Your task to perform on an android device: Open eBay Image 0: 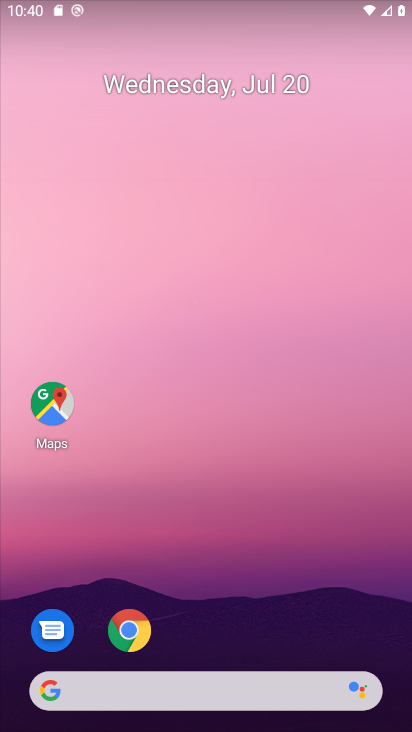
Step 0: click (151, 99)
Your task to perform on an android device: Open eBay Image 1: 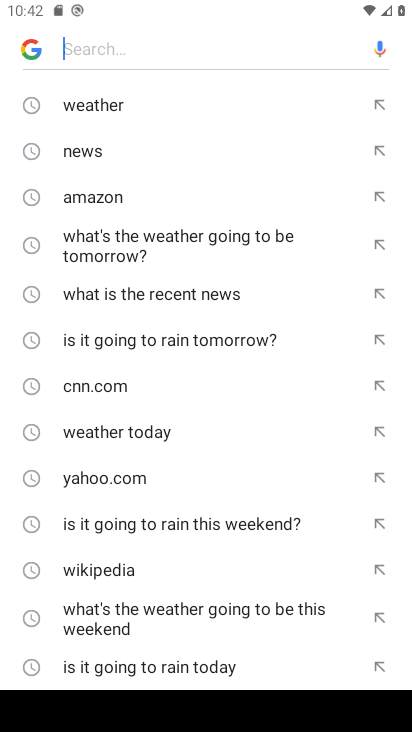
Step 1: press back button
Your task to perform on an android device: Open eBay Image 2: 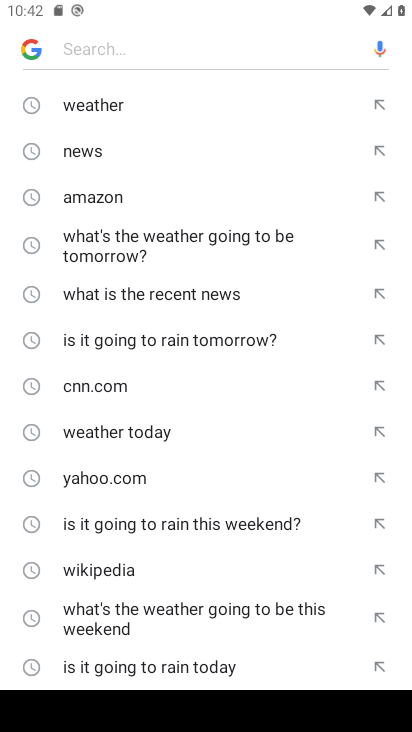
Step 2: press back button
Your task to perform on an android device: Open eBay Image 3: 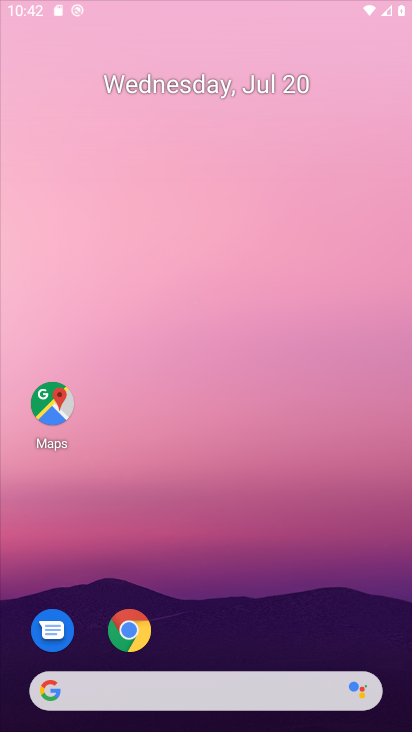
Step 3: press back button
Your task to perform on an android device: Open eBay Image 4: 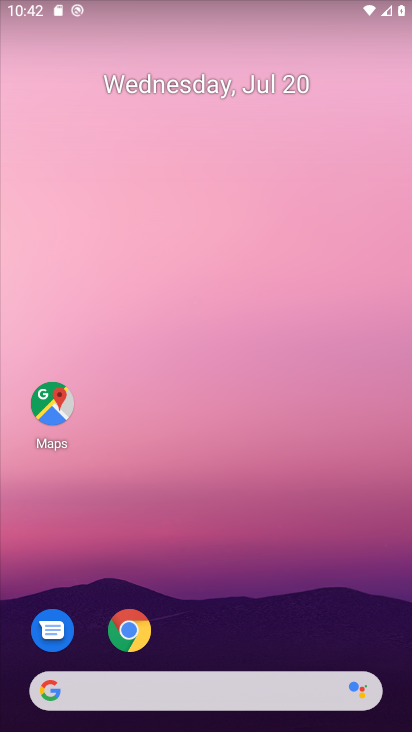
Step 4: drag from (206, 572) to (144, 52)
Your task to perform on an android device: Open eBay Image 5: 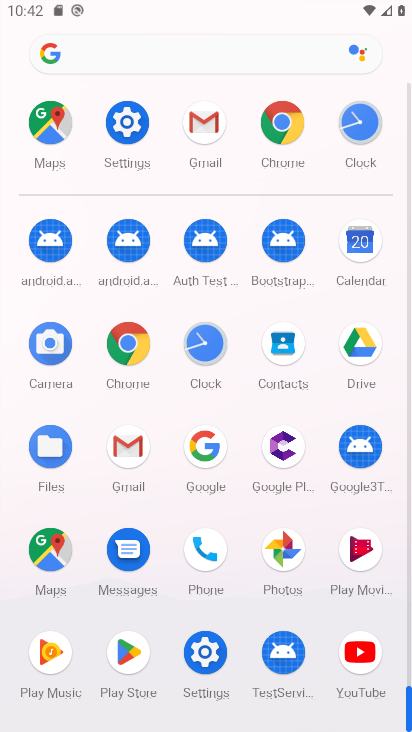
Step 5: click (281, 122)
Your task to perform on an android device: Open eBay Image 6: 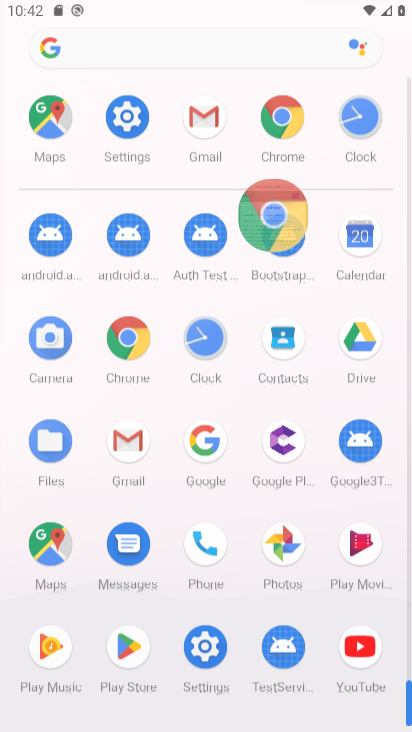
Step 6: click (281, 122)
Your task to perform on an android device: Open eBay Image 7: 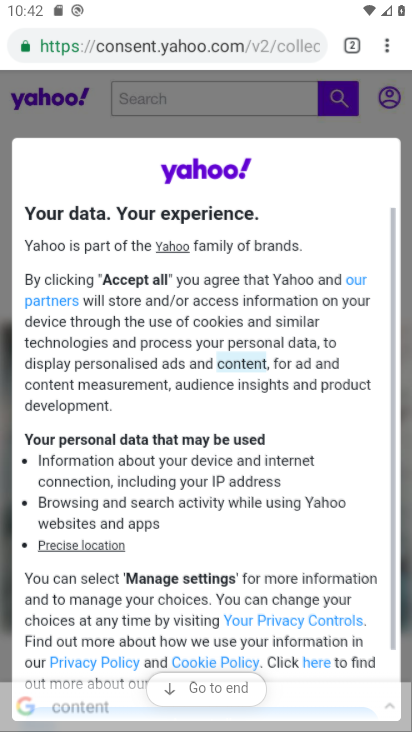
Step 7: drag from (391, 33) to (214, 91)
Your task to perform on an android device: Open eBay Image 8: 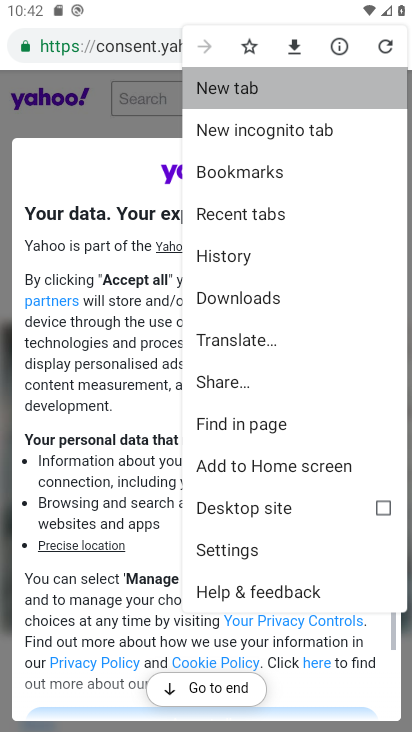
Step 8: click (214, 90)
Your task to perform on an android device: Open eBay Image 9: 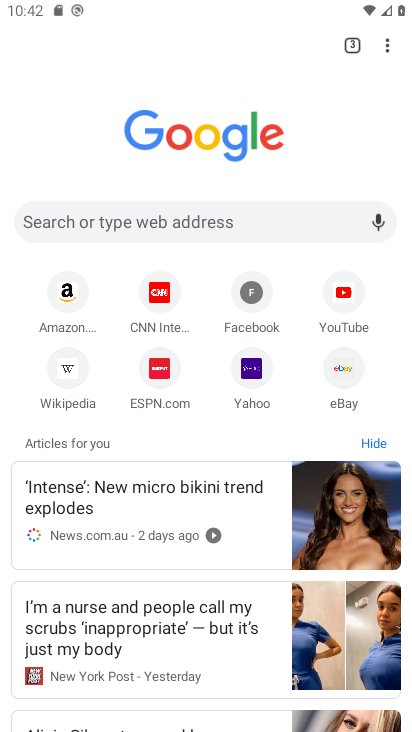
Step 9: click (350, 366)
Your task to perform on an android device: Open eBay Image 10: 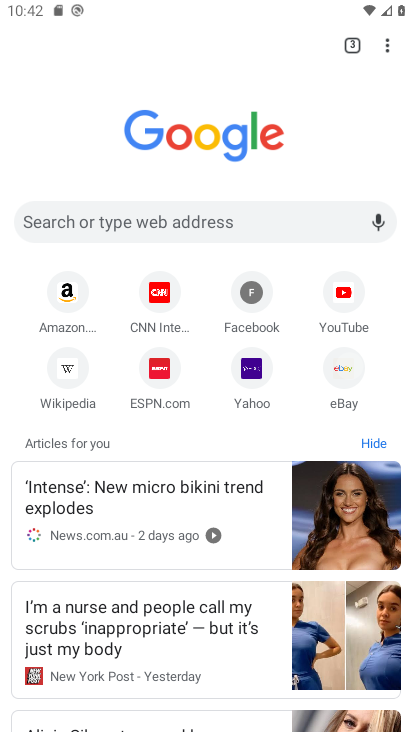
Step 10: click (338, 374)
Your task to perform on an android device: Open eBay Image 11: 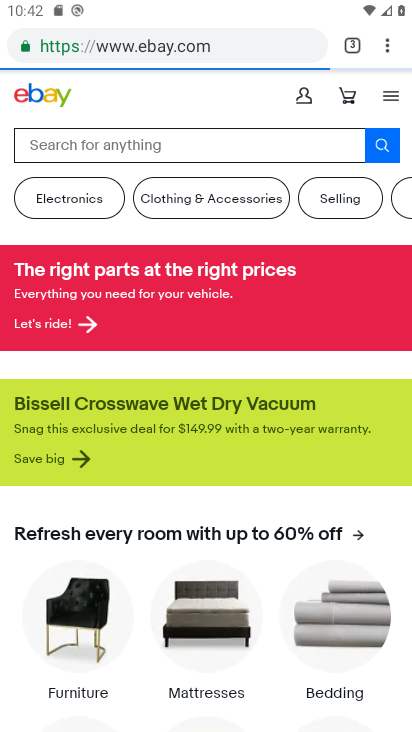
Step 11: task complete